Your task to perform on an android device: Search for pizza restaurants on Maps Image 0: 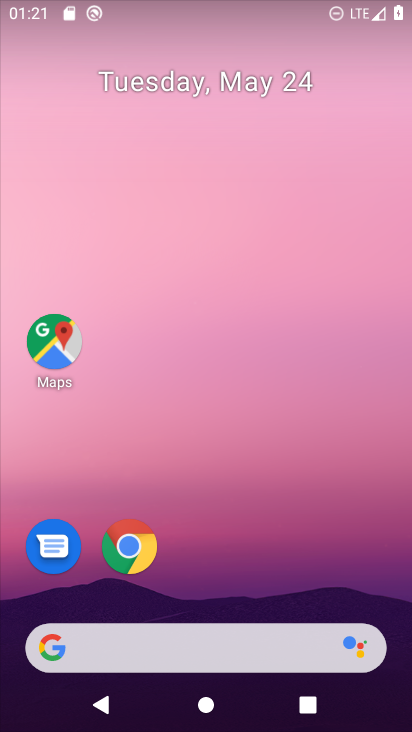
Step 0: drag from (328, 627) to (270, 25)
Your task to perform on an android device: Search for pizza restaurants on Maps Image 1: 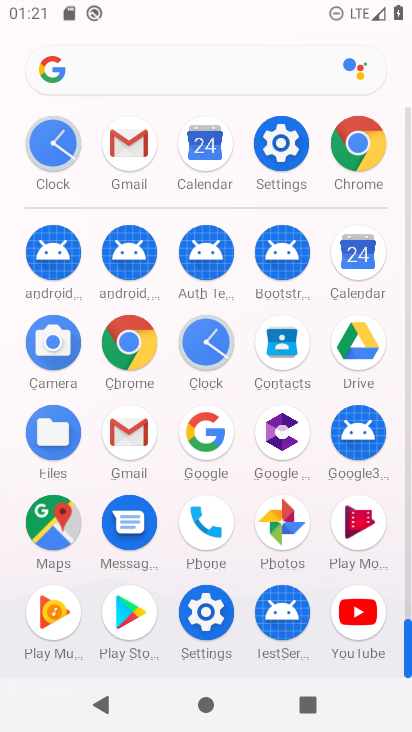
Step 1: click (72, 517)
Your task to perform on an android device: Search for pizza restaurants on Maps Image 2: 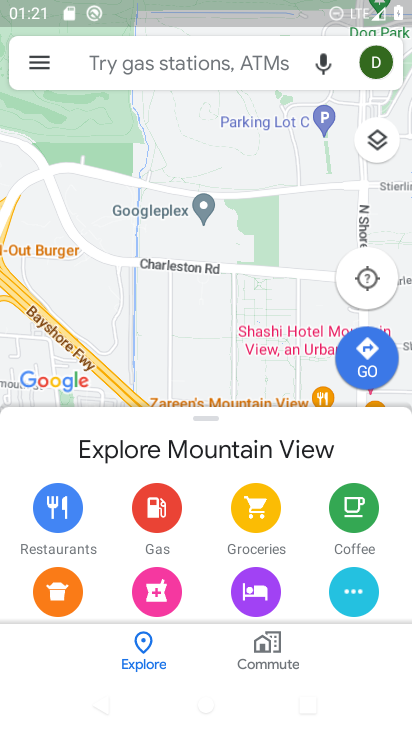
Step 2: click (154, 68)
Your task to perform on an android device: Search for pizza restaurants on Maps Image 3: 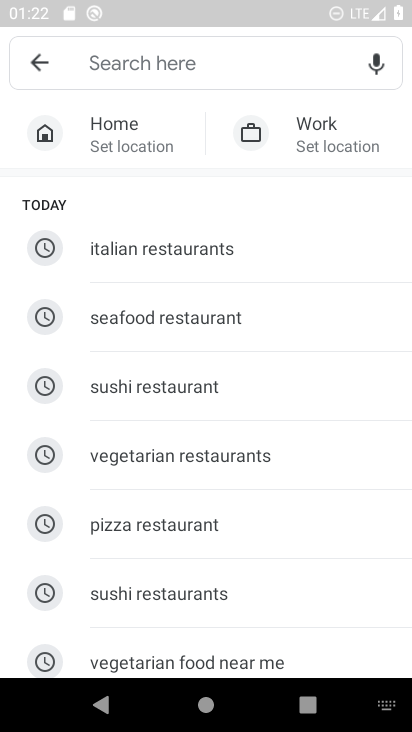
Step 3: click (187, 527)
Your task to perform on an android device: Search for pizza restaurants on Maps Image 4: 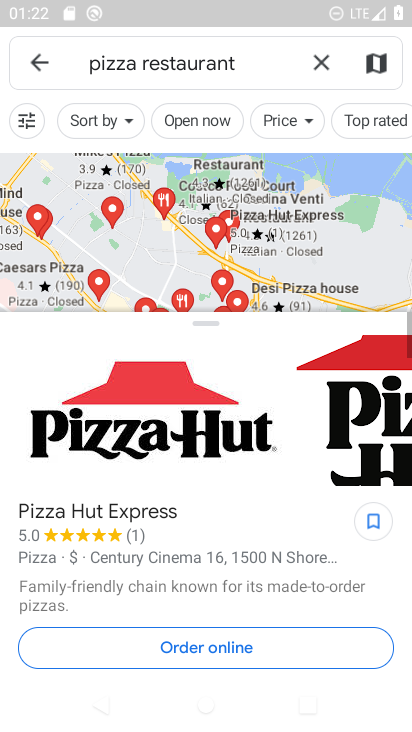
Step 4: task complete